Your task to perform on an android device: Open Yahoo.com Image 0: 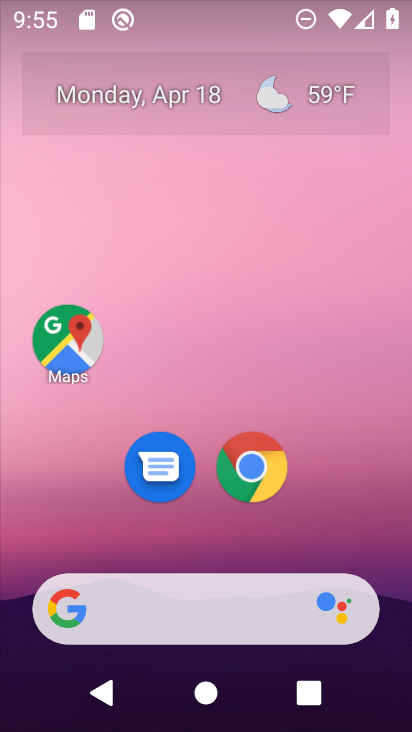
Step 0: click (255, 462)
Your task to perform on an android device: Open Yahoo.com Image 1: 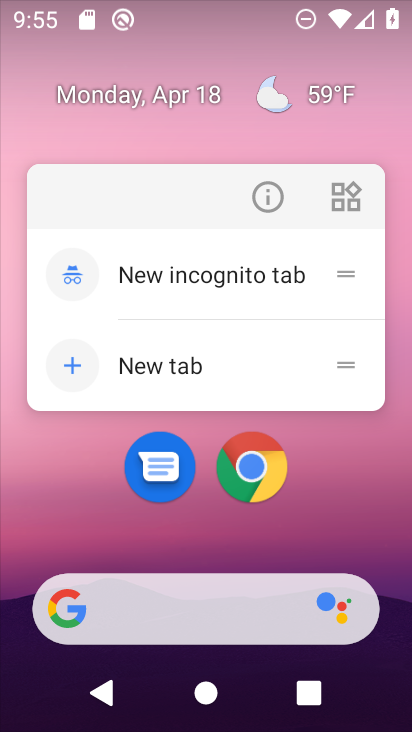
Step 1: click (253, 461)
Your task to perform on an android device: Open Yahoo.com Image 2: 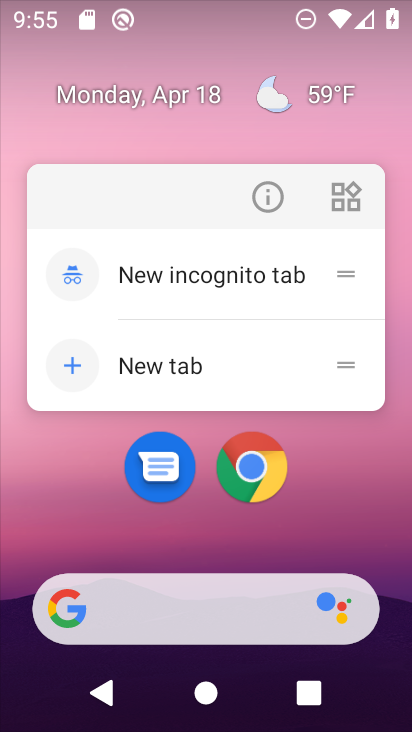
Step 2: click (270, 467)
Your task to perform on an android device: Open Yahoo.com Image 3: 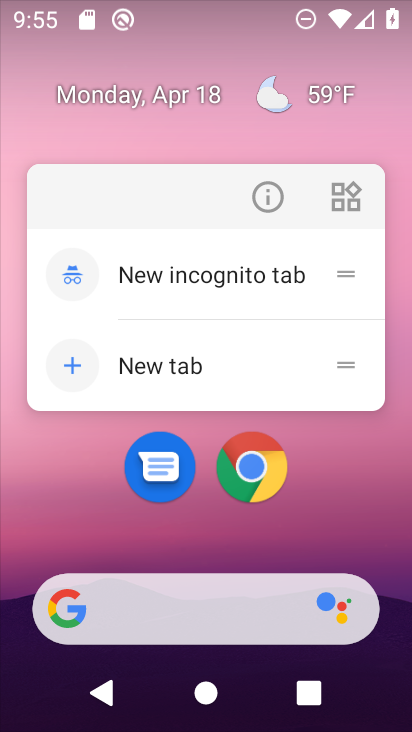
Step 3: click (266, 460)
Your task to perform on an android device: Open Yahoo.com Image 4: 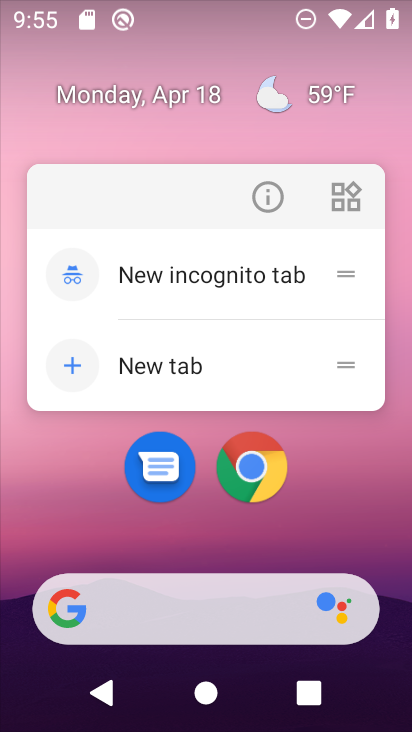
Step 4: click (225, 447)
Your task to perform on an android device: Open Yahoo.com Image 5: 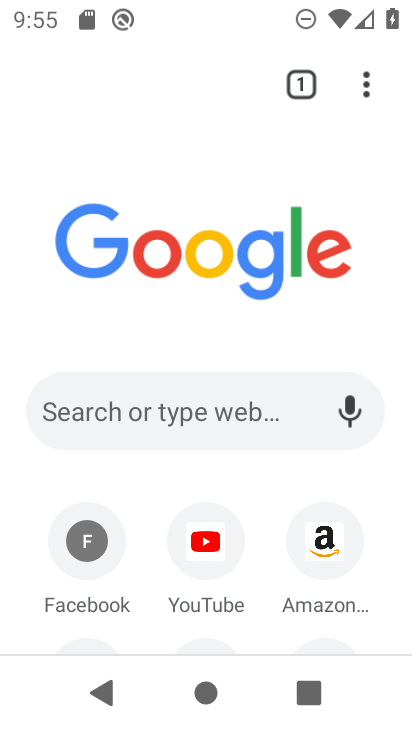
Step 5: drag from (235, 598) to (284, 255)
Your task to perform on an android device: Open Yahoo.com Image 6: 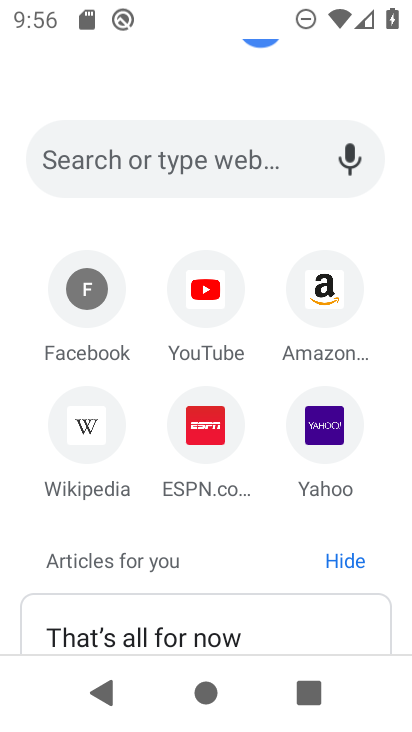
Step 6: click (326, 423)
Your task to perform on an android device: Open Yahoo.com Image 7: 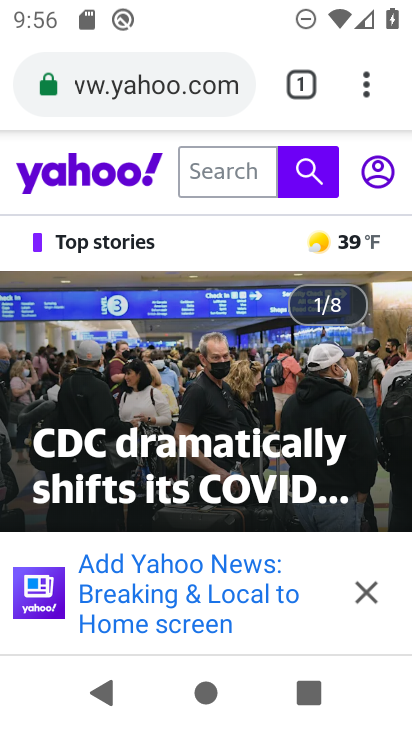
Step 7: task complete